Your task to perform on an android device: Open location settings Image 0: 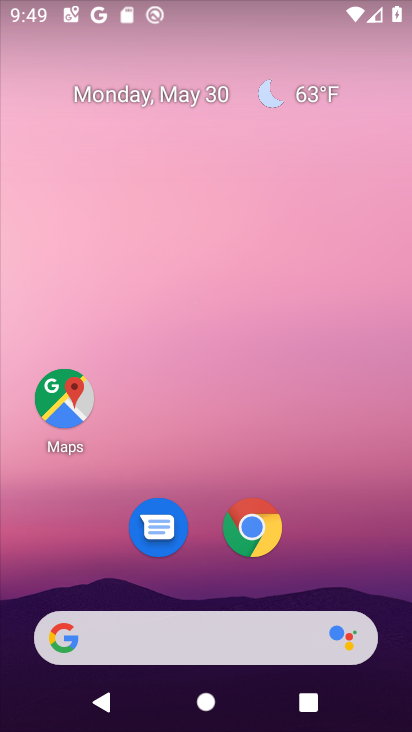
Step 0: click (246, 515)
Your task to perform on an android device: Open location settings Image 1: 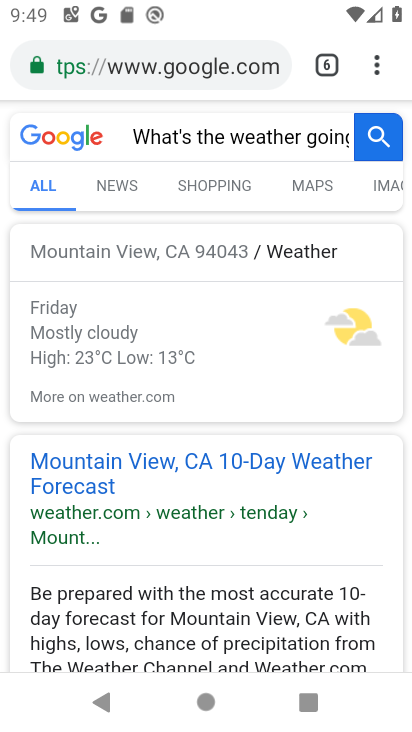
Step 1: press home button
Your task to perform on an android device: Open location settings Image 2: 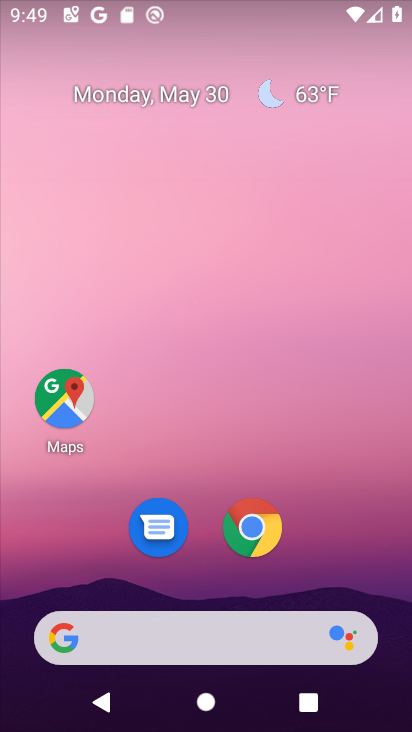
Step 2: drag from (341, 586) to (324, 287)
Your task to perform on an android device: Open location settings Image 3: 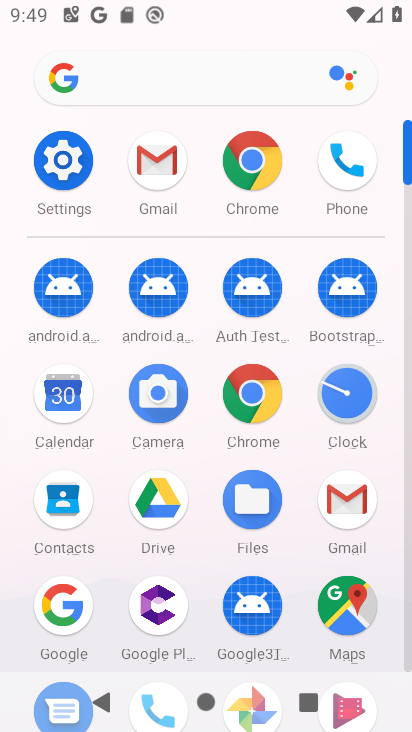
Step 3: click (50, 153)
Your task to perform on an android device: Open location settings Image 4: 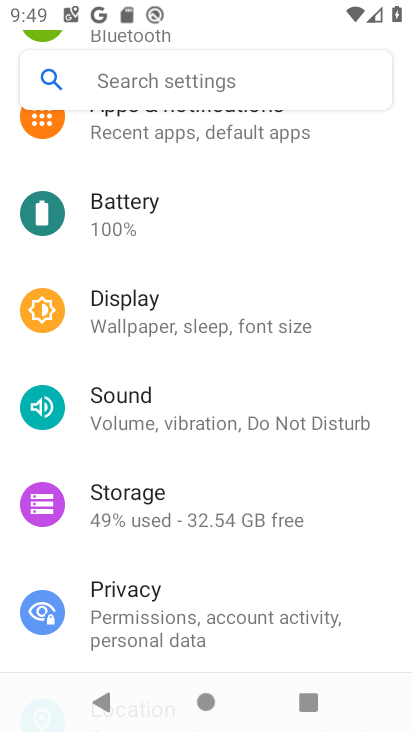
Step 4: drag from (235, 575) to (330, 186)
Your task to perform on an android device: Open location settings Image 5: 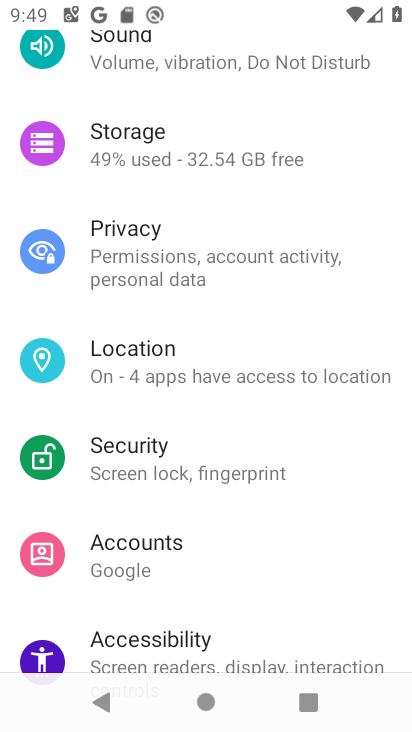
Step 5: click (198, 374)
Your task to perform on an android device: Open location settings Image 6: 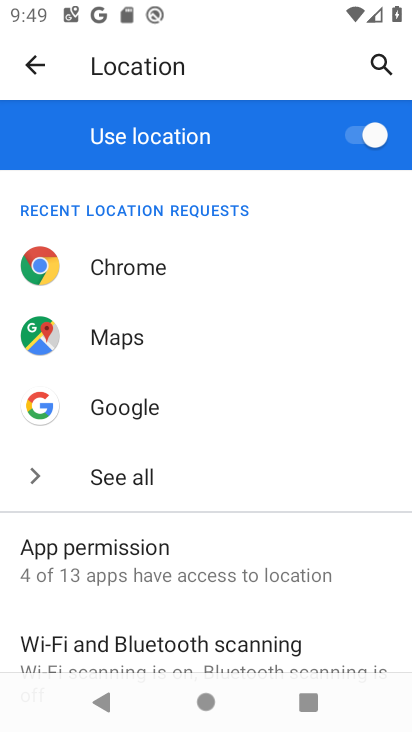
Step 6: task complete